Your task to perform on an android device: see sites visited before in the chrome app Image 0: 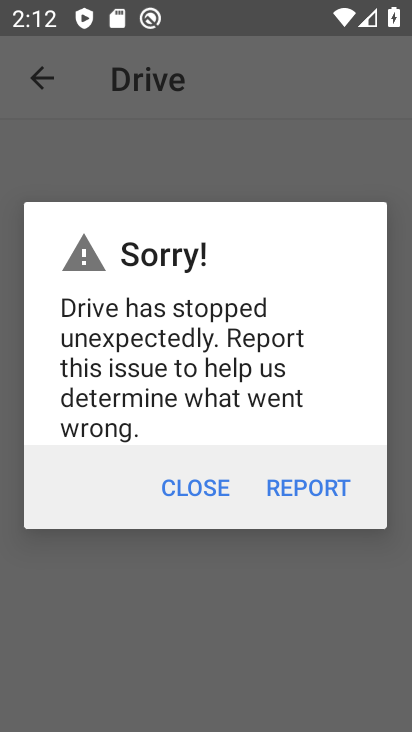
Step 0: press home button
Your task to perform on an android device: see sites visited before in the chrome app Image 1: 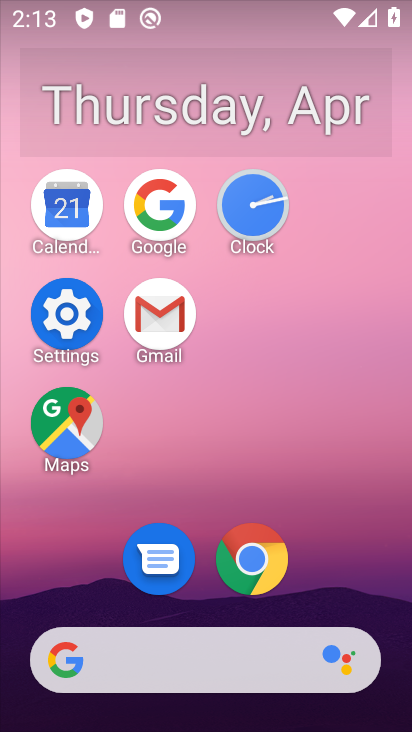
Step 1: click (263, 537)
Your task to perform on an android device: see sites visited before in the chrome app Image 2: 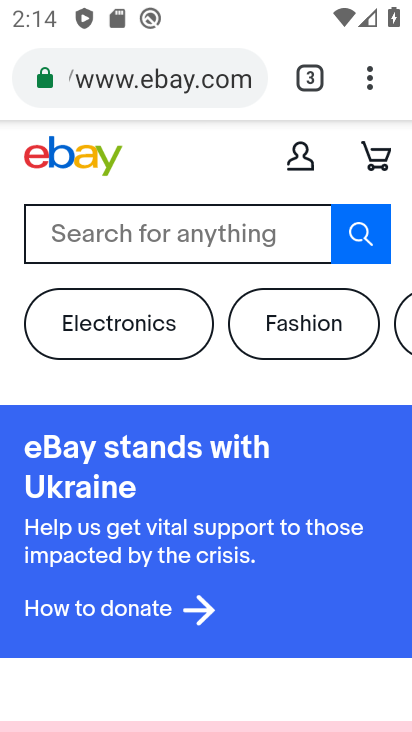
Step 2: click (368, 79)
Your task to perform on an android device: see sites visited before in the chrome app Image 3: 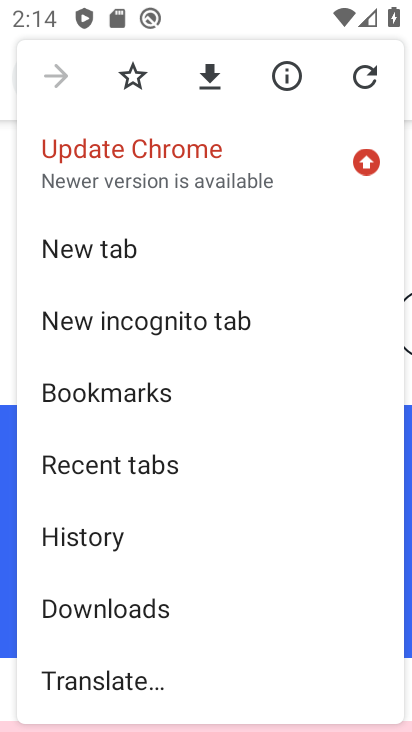
Step 3: click (136, 471)
Your task to perform on an android device: see sites visited before in the chrome app Image 4: 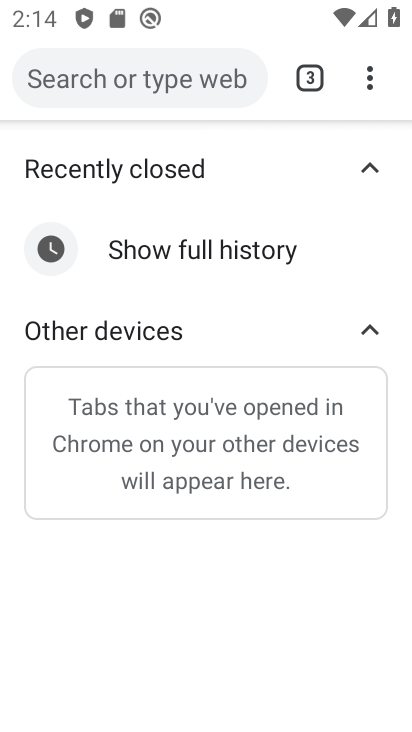
Step 4: task complete